Your task to perform on an android device: turn on airplane mode Image 0: 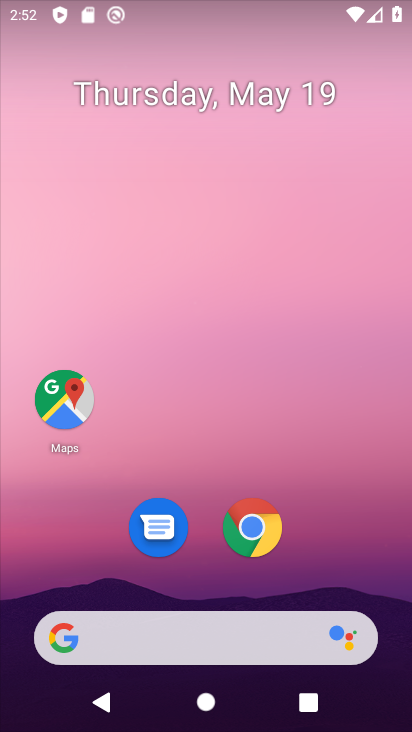
Step 0: drag from (303, 94) to (292, 625)
Your task to perform on an android device: turn on airplane mode Image 1: 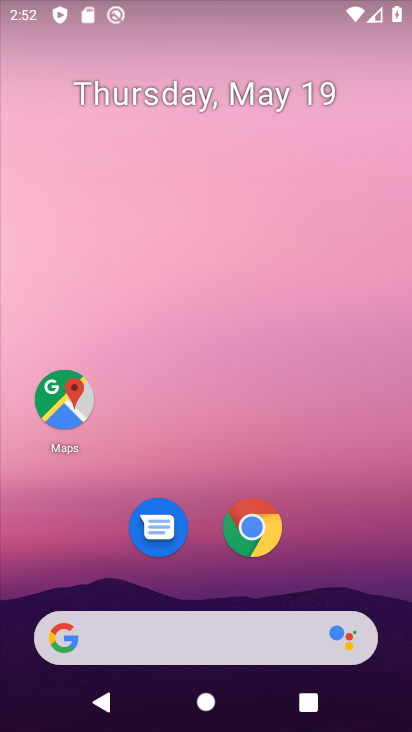
Step 1: drag from (345, 8) to (311, 575)
Your task to perform on an android device: turn on airplane mode Image 2: 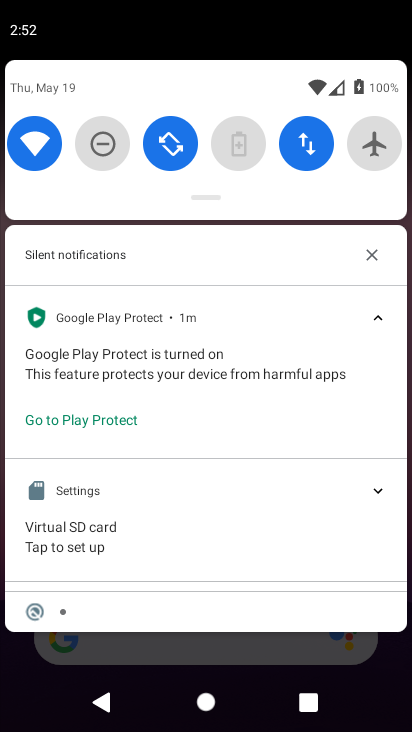
Step 2: click (371, 140)
Your task to perform on an android device: turn on airplane mode Image 3: 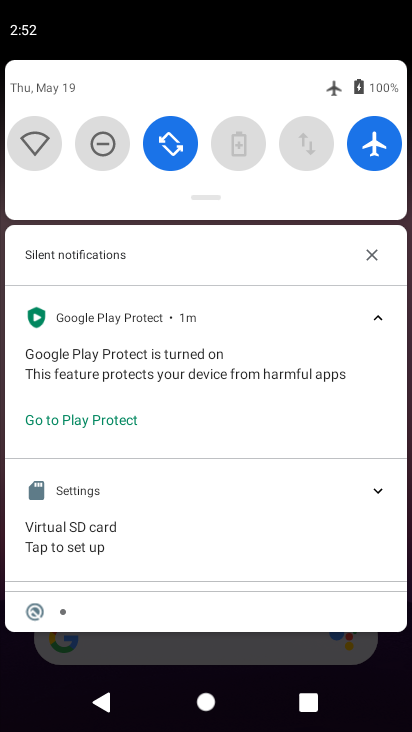
Step 3: task complete